Your task to perform on an android device: empty trash in the gmail app Image 0: 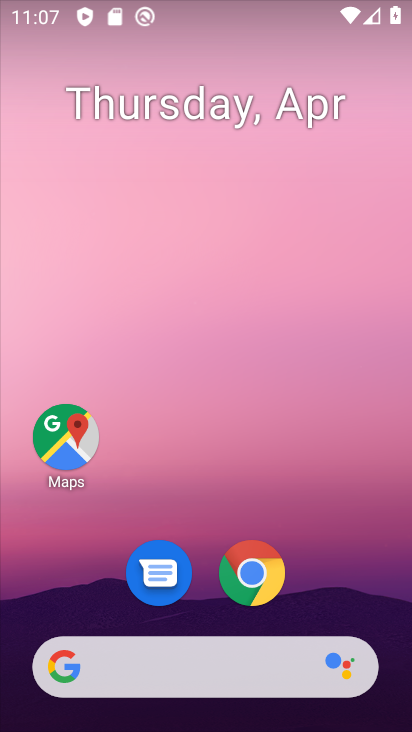
Step 0: drag from (348, 569) to (332, 107)
Your task to perform on an android device: empty trash in the gmail app Image 1: 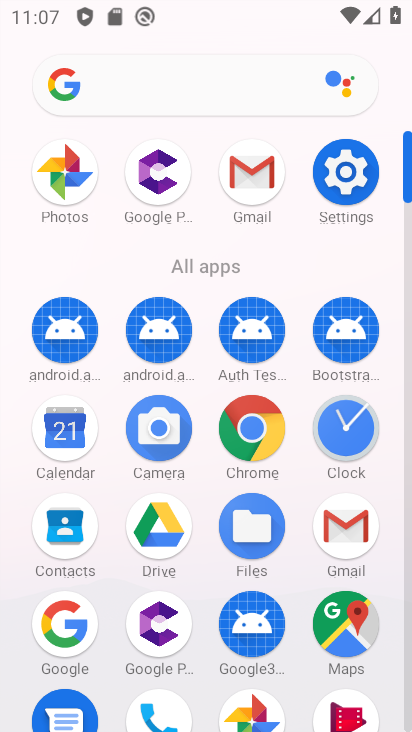
Step 1: click (249, 182)
Your task to perform on an android device: empty trash in the gmail app Image 2: 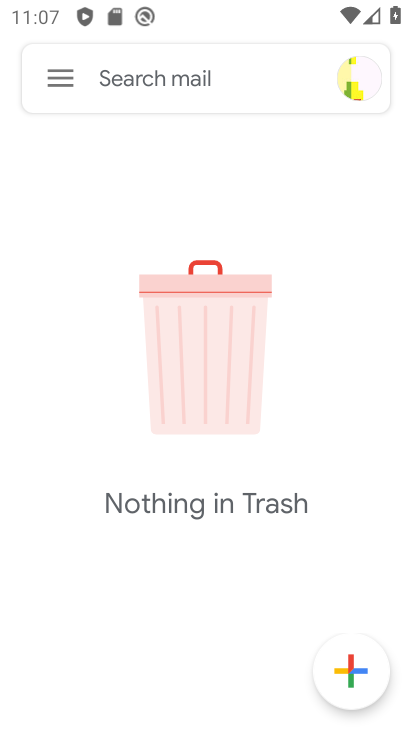
Step 2: task complete